Your task to perform on an android device: What's the news in Singapore? Image 0: 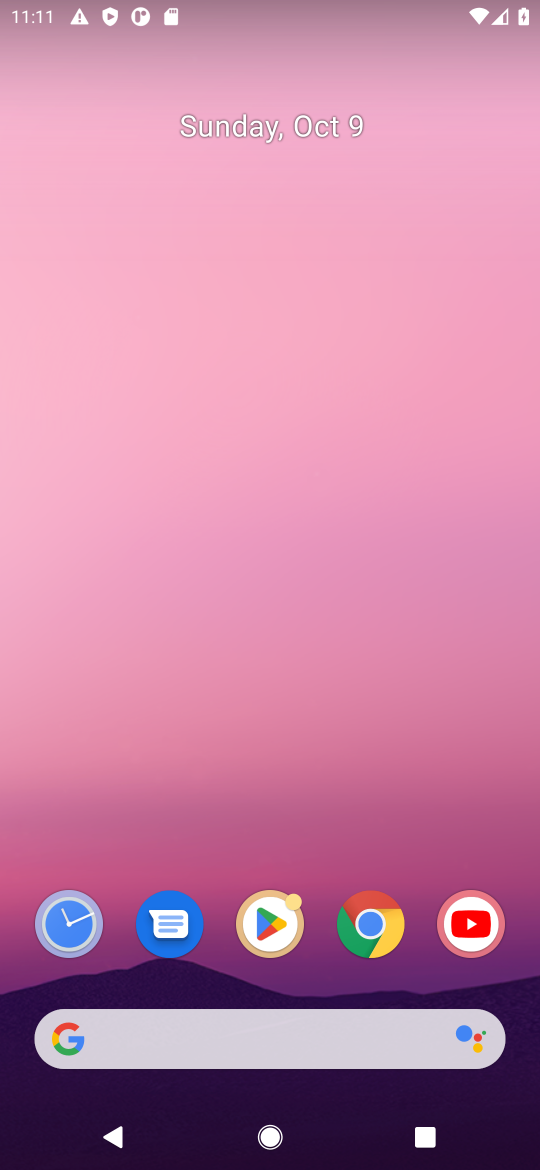
Step 0: drag from (200, 985) to (147, 50)
Your task to perform on an android device: What's the news in Singapore? Image 1: 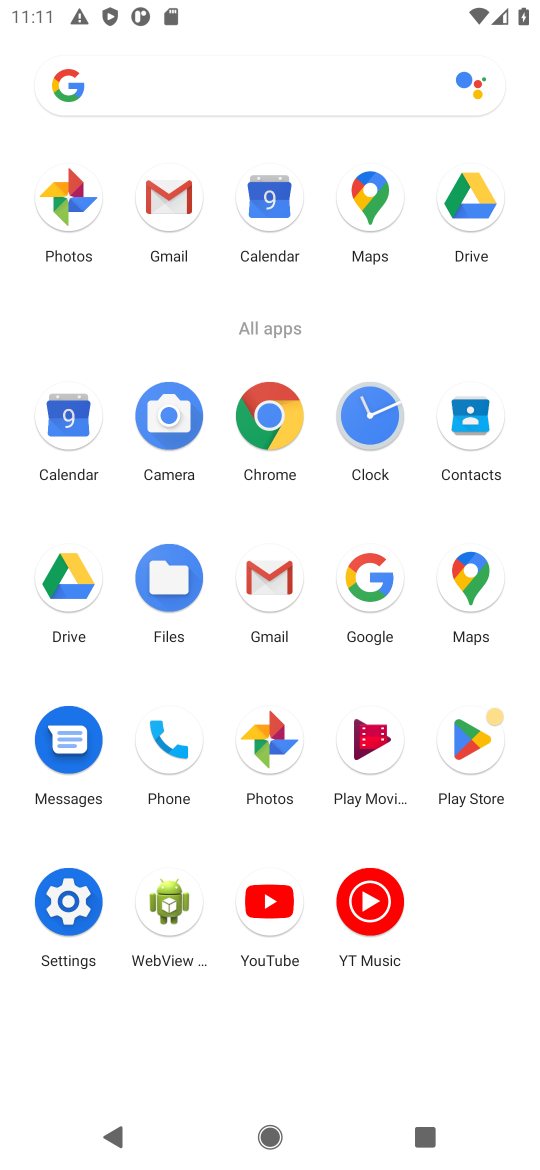
Step 1: click (280, 407)
Your task to perform on an android device: What's the news in Singapore? Image 2: 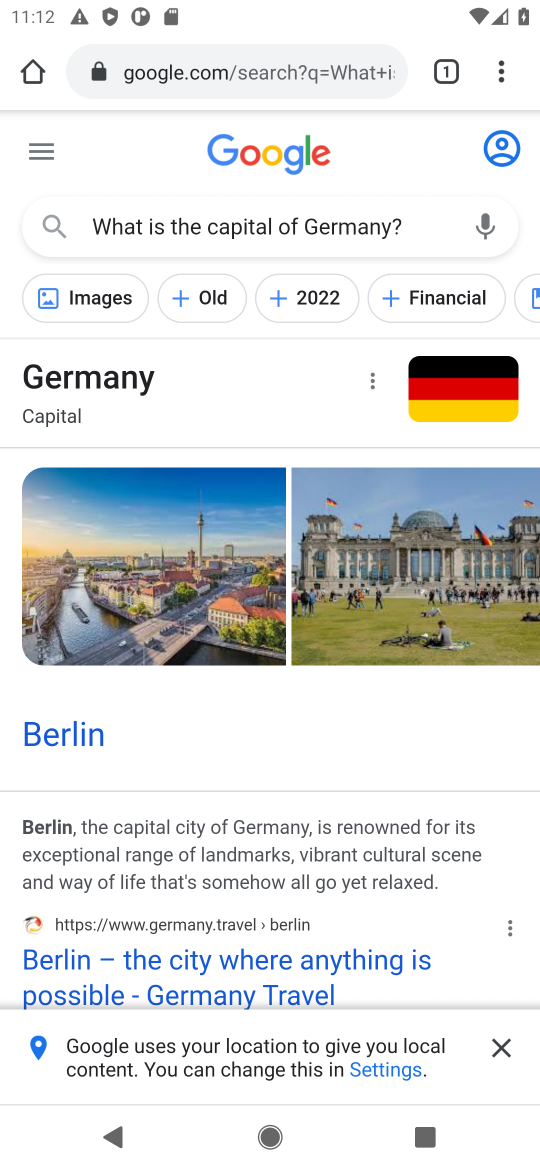
Step 2: click (317, 84)
Your task to perform on an android device: What's the news in Singapore? Image 3: 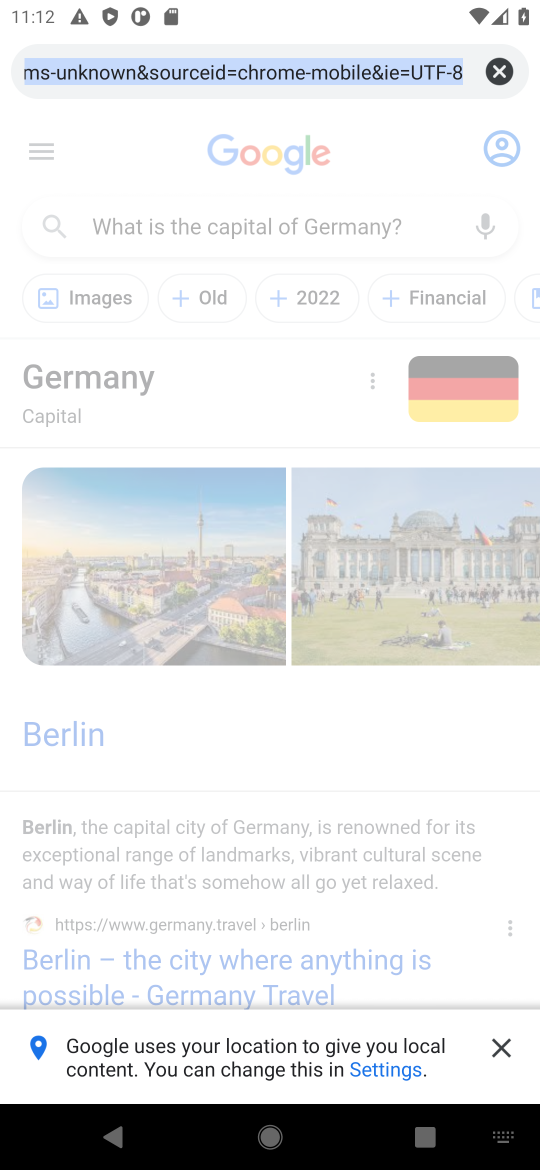
Step 3: click (501, 71)
Your task to perform on an android device: What's the news in Singapore? Image 4: 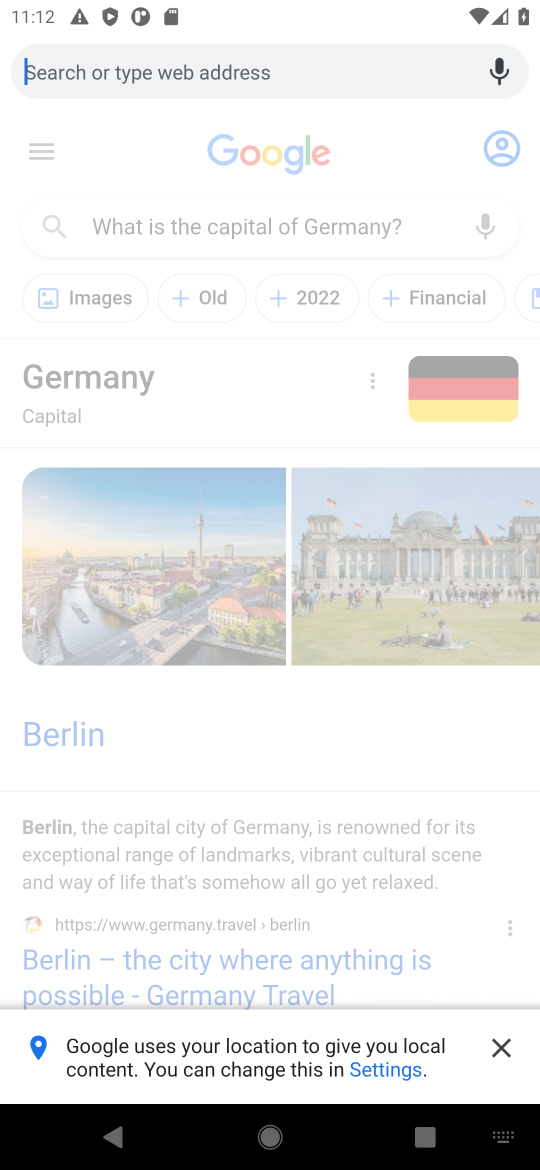
Step 4: type "What's the news in Singapore"
Your task to perform on an android device: What's the news in Singapore? Image 5: 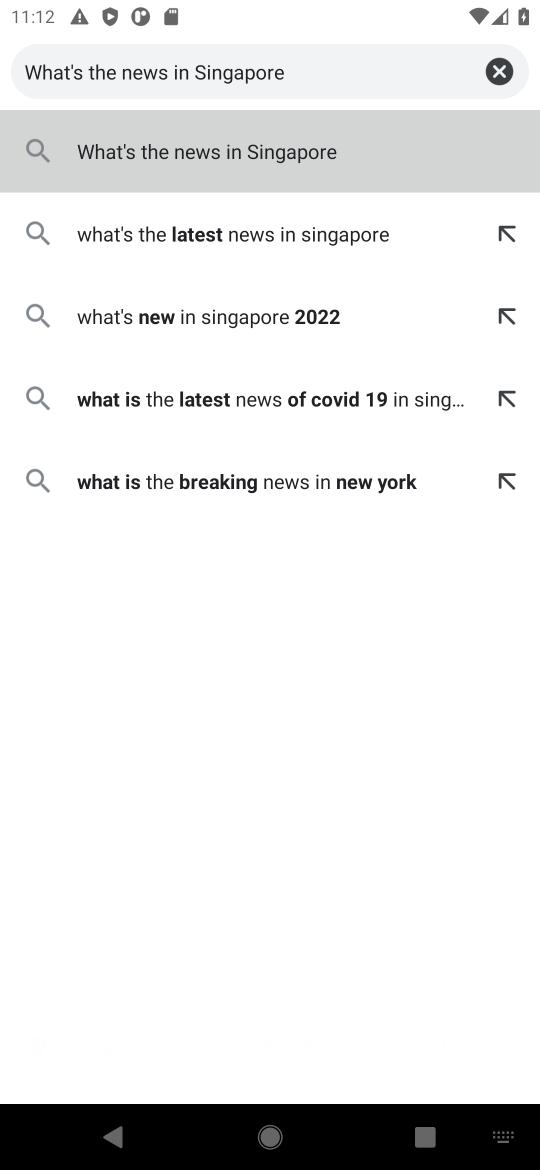
Step 5: press enter
Your task to perform on an android device: What's the news in Singapore? Image 6: 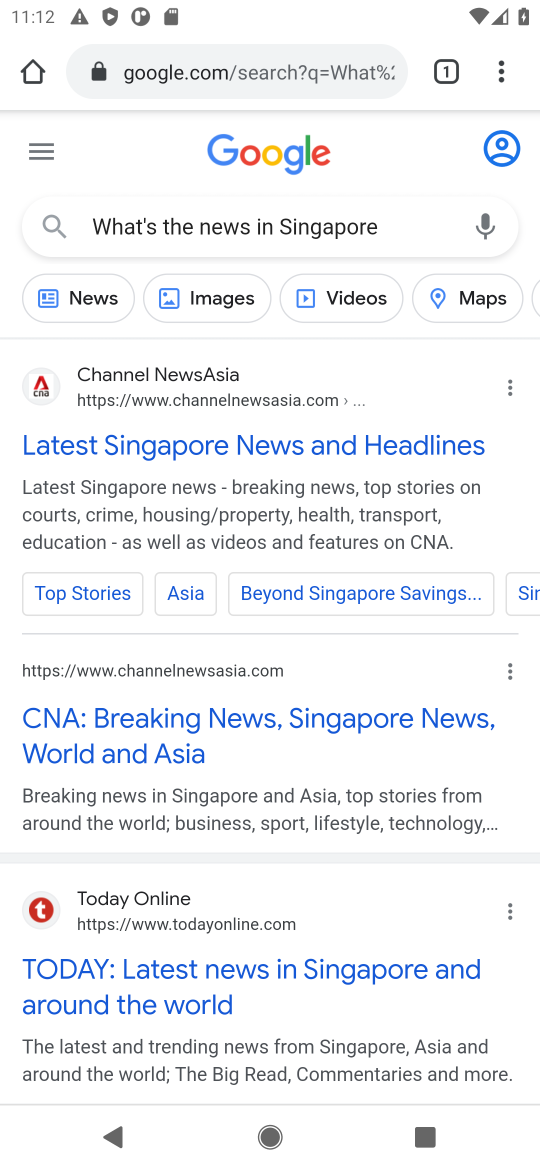
Step 6: click (175, 440)
Your task to perform on an android device: What's the news in Singapore? Image 7: 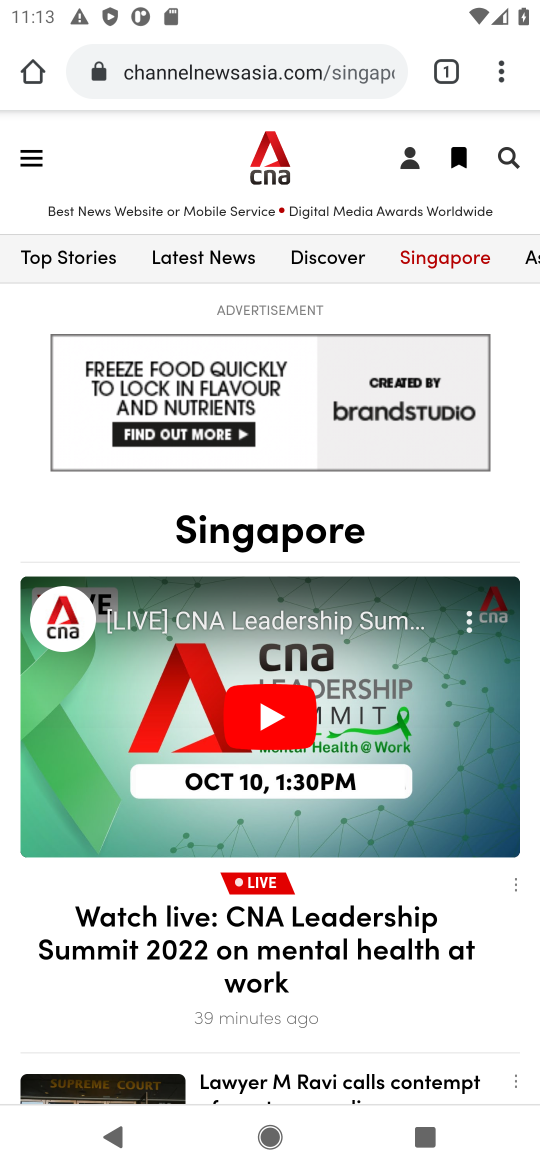
Step 7: task complete